Your task to perform on an android device: open app "Roku - Official Remote Control" Image 0: 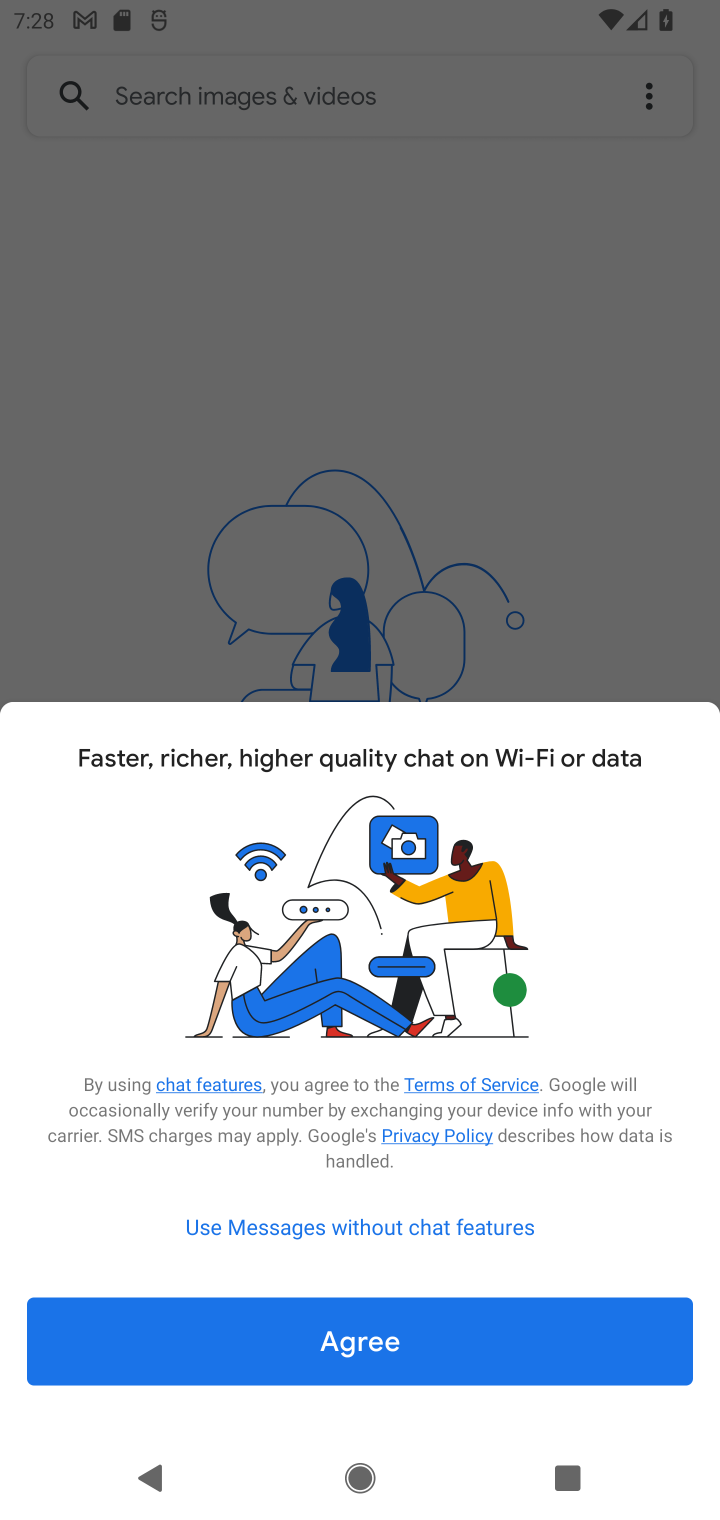
Step 0: press home button
Your task to perform on an android device: open app "Roku - Official Remote Control" Image 1: 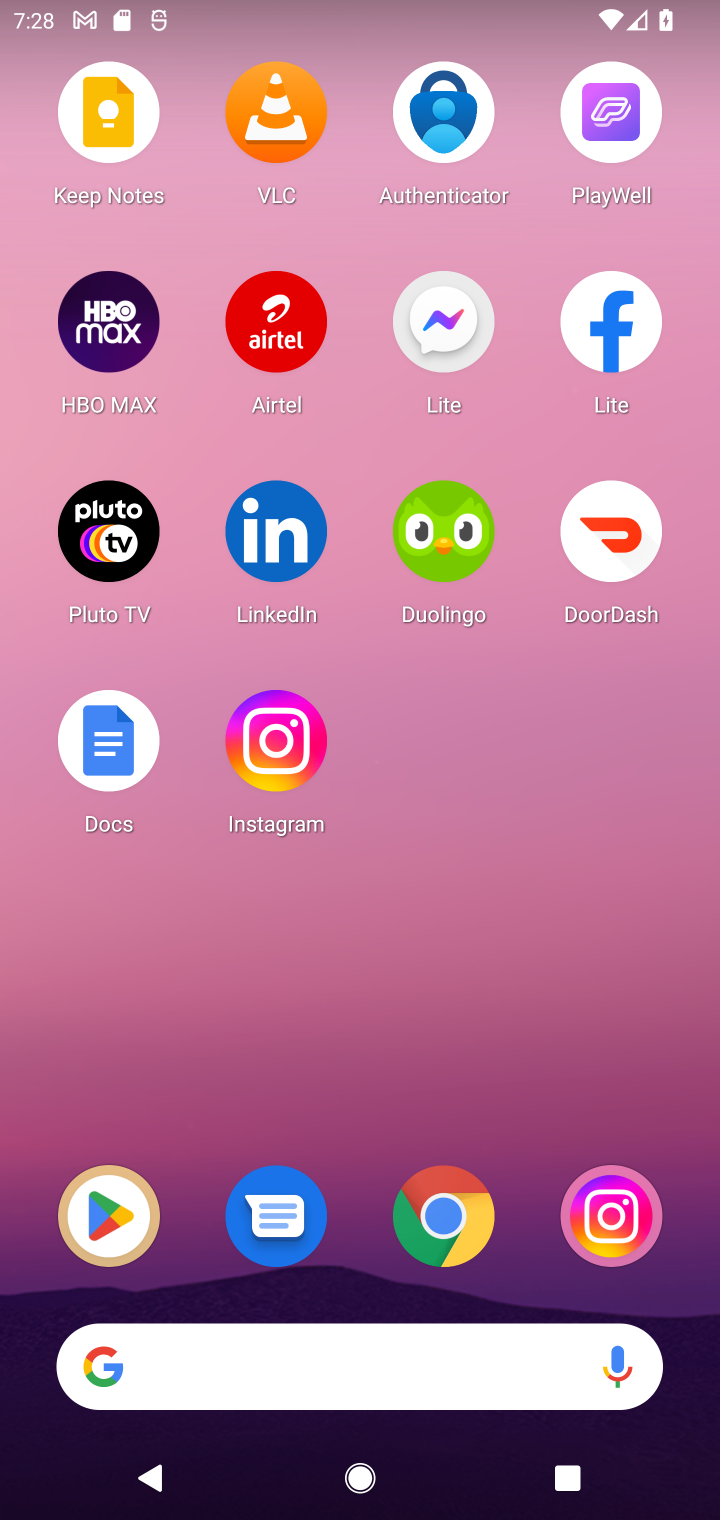
Step 1: press home button
Your task to perform on an android device: open app "Roku - Official Remote Control" Image 2: 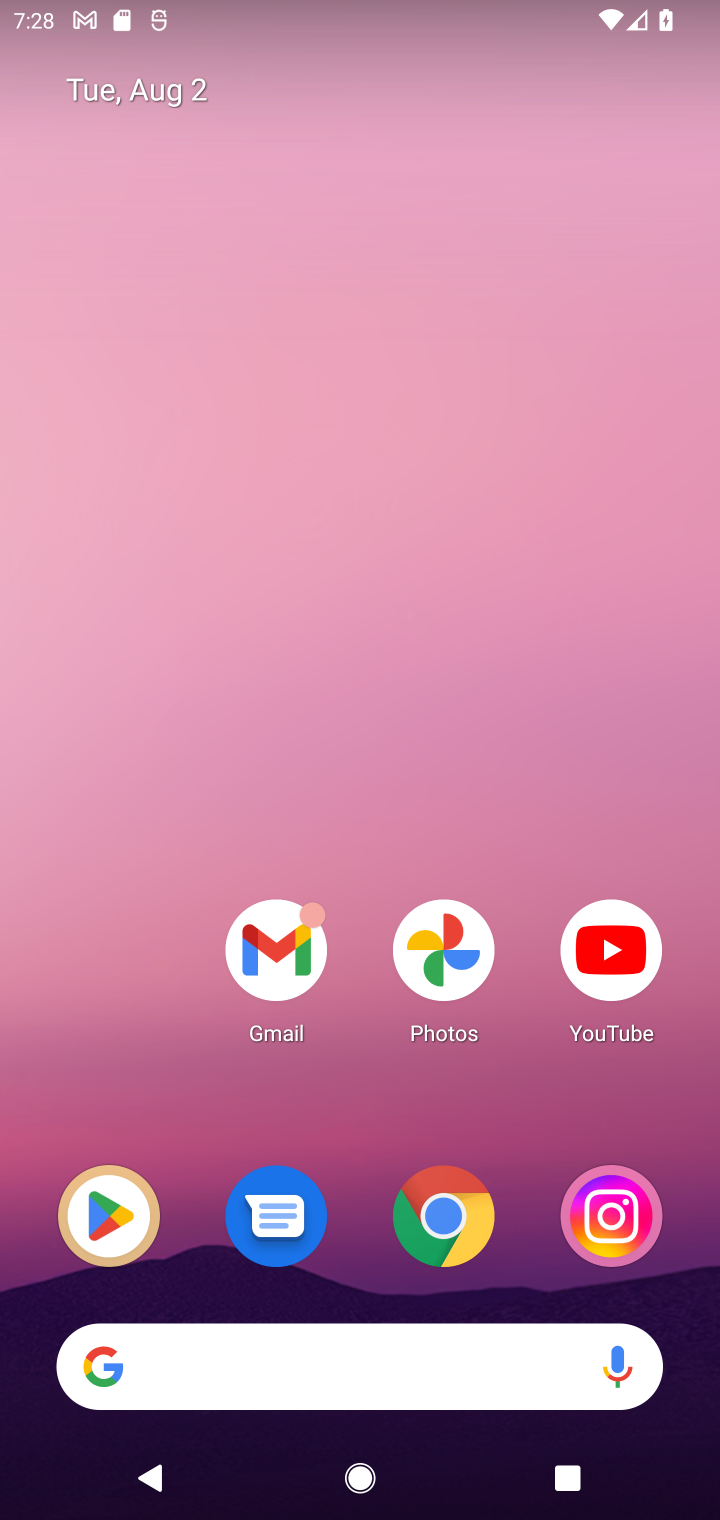
Step 2: click (95, 1209)
Your task to perform on an android device: open app "Roku - Official Remote Control" Image 3: 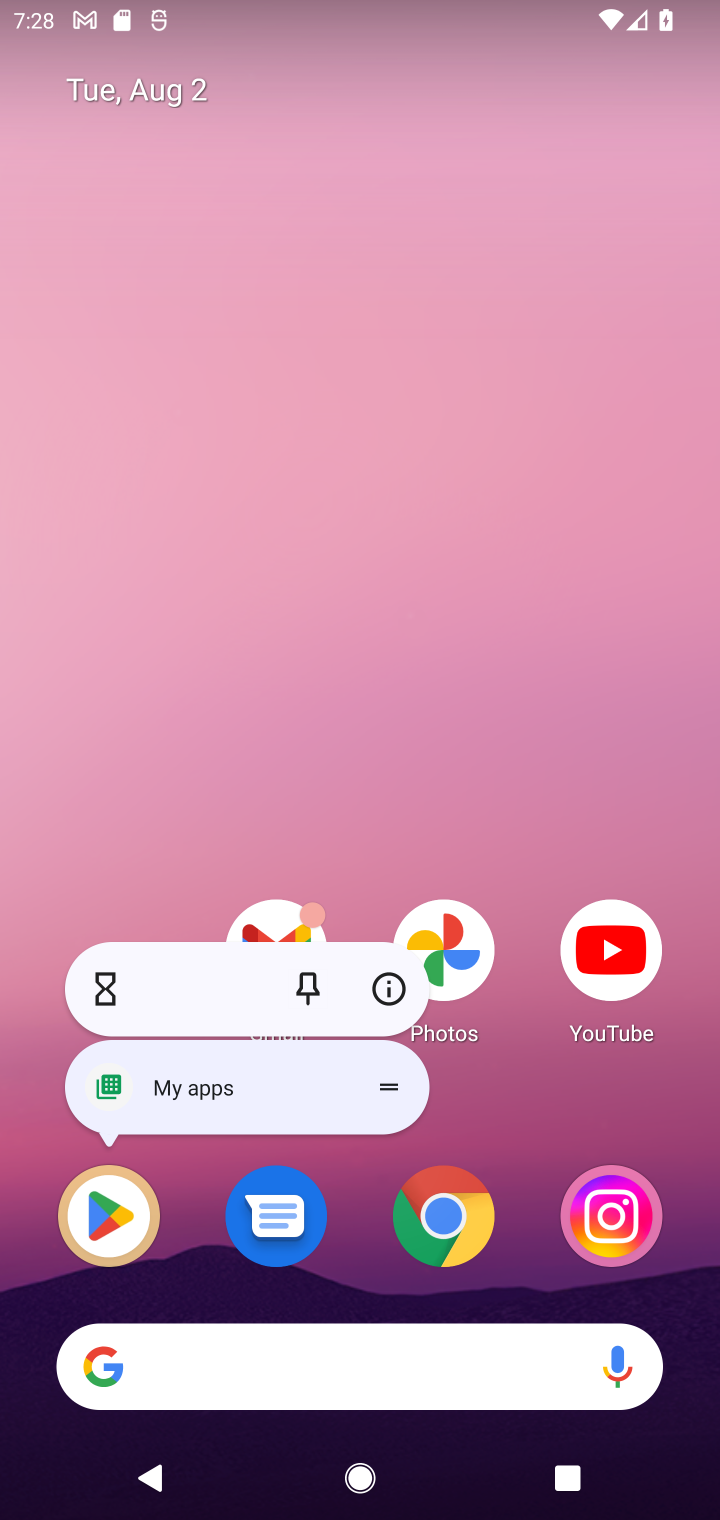
Step 3: click (93, 1209)
Your task to perform on an android device: open app "Roku - Official Remote Control" Image 4: 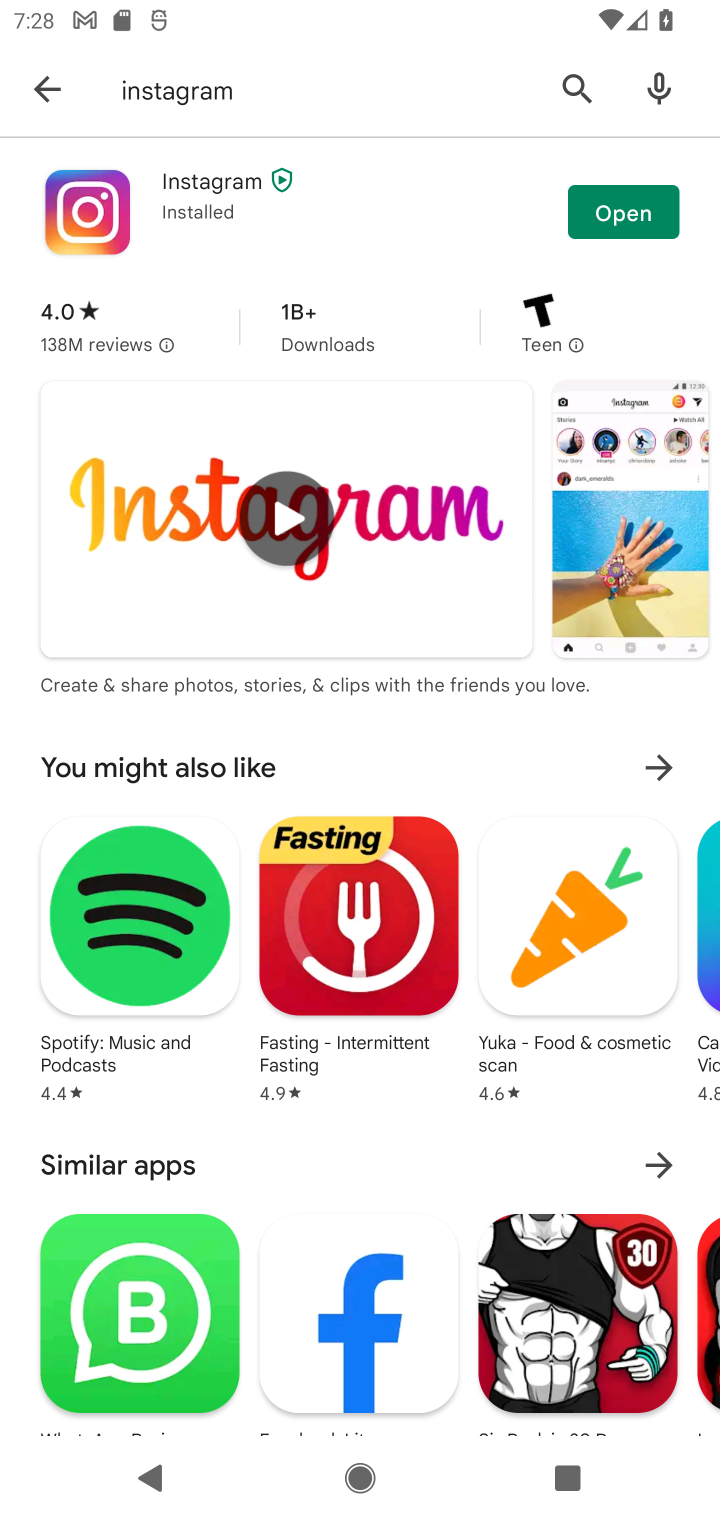
Step 4: click (574, 82)
Your task to perform on an android device: open app "Roku - Official Remote Control" Image 5: 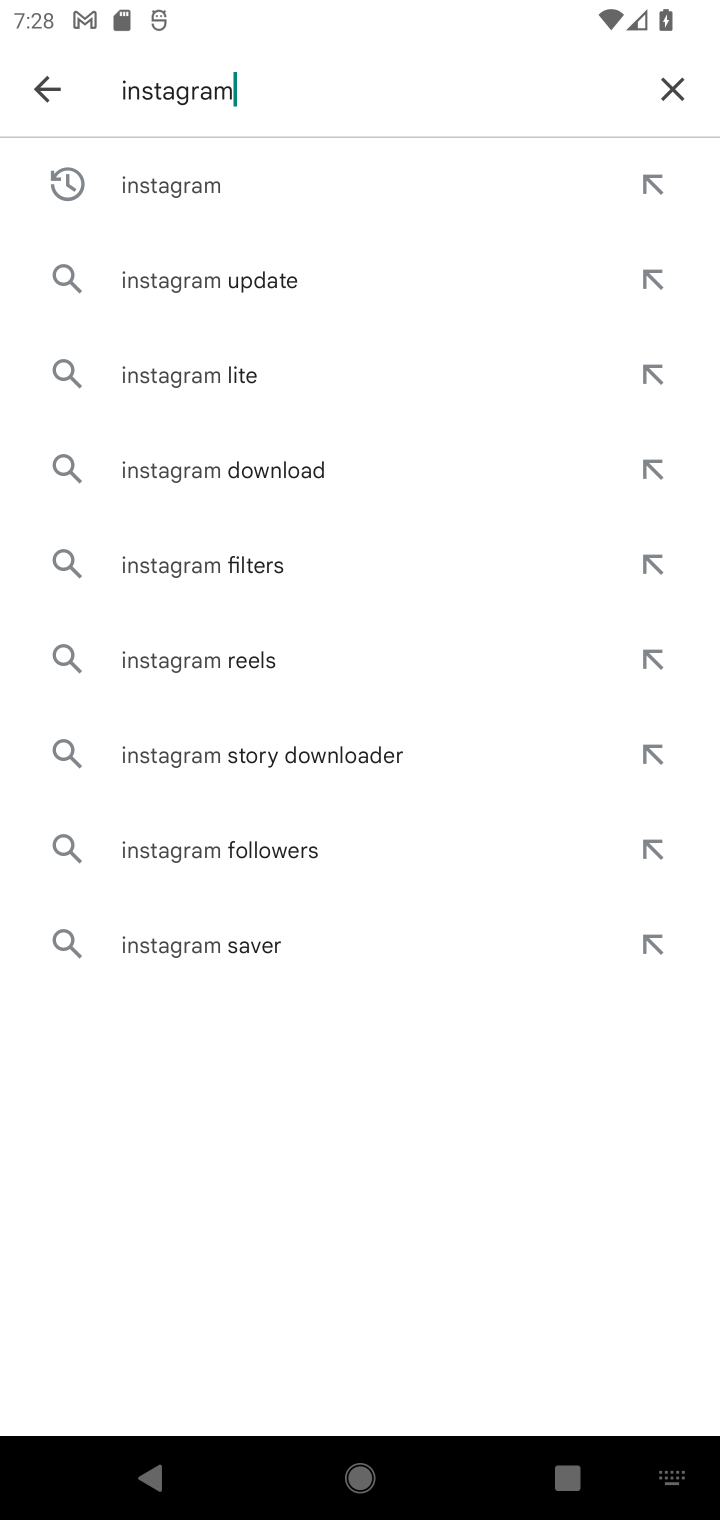
Step 5: click (676, 86)
Your task to perform on an android device: open app "Roku - Official Remote Control" Image 6: 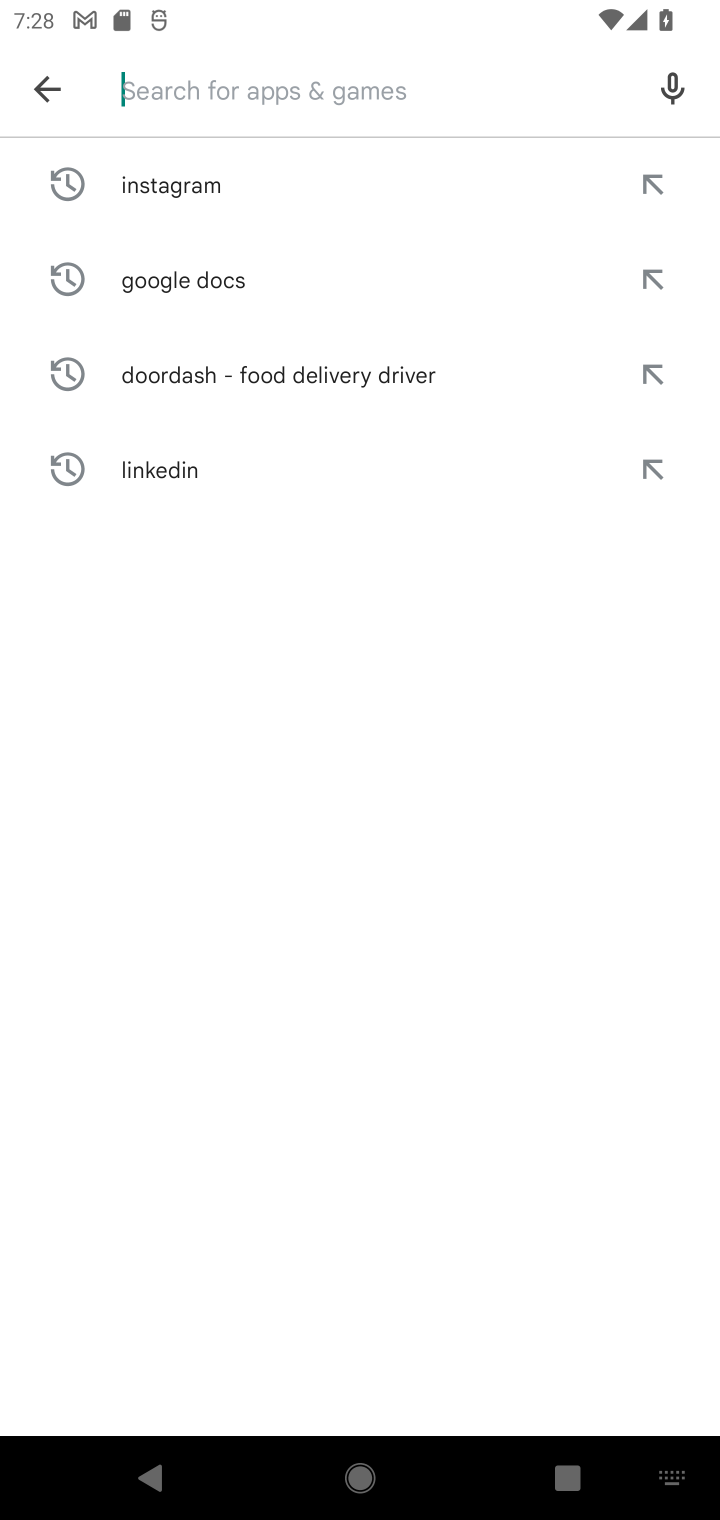
Step 6: type "Roku - Official Remote Control"
Your task to perform on an android device: open app "Roku - Official Remote Control" Image 7: 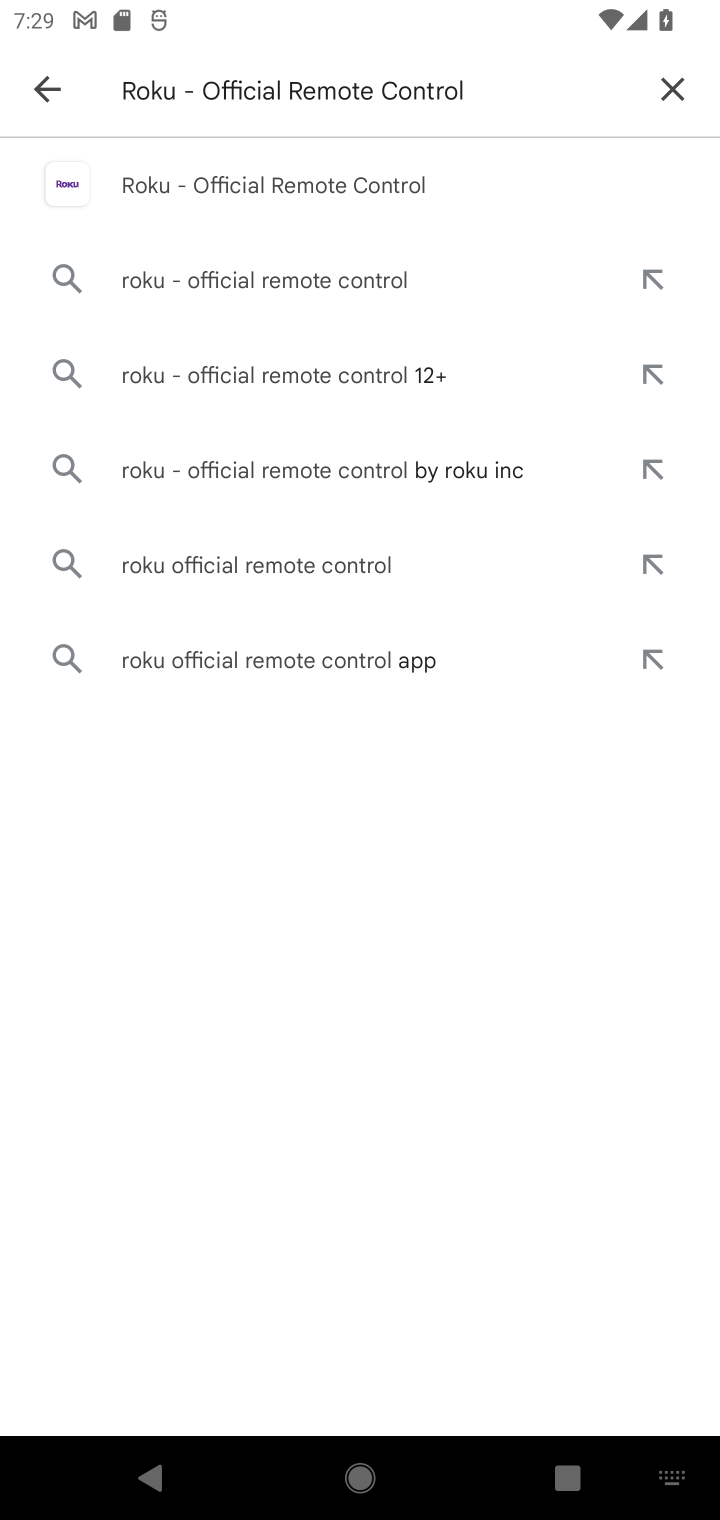
Step 7: click (236, 187)
Your task to perform on an android device: open app "Roku - Official Remote Control" Image 8: 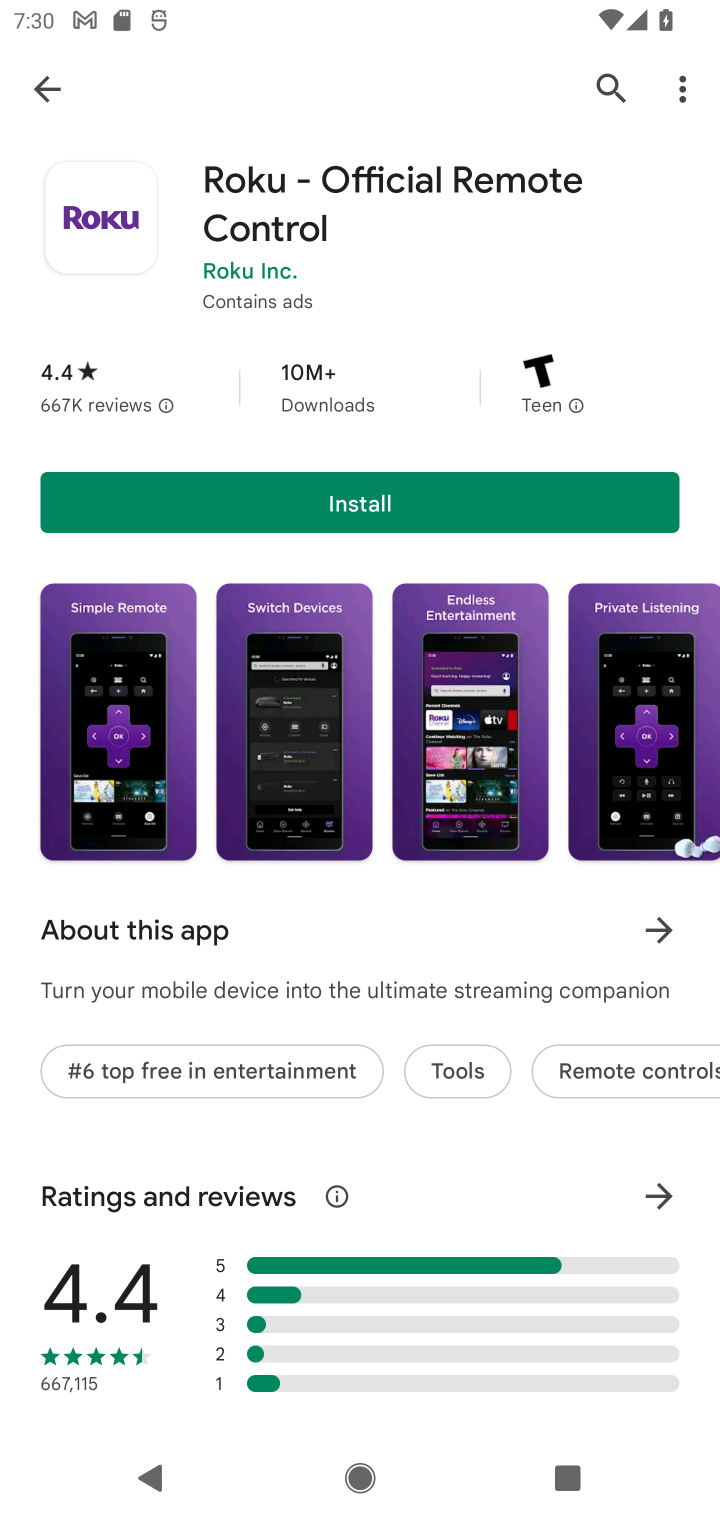
Step 8: click (353, 510)
Your task to perform on an android device: open app "Roku - Official Remote Control" Image 9: 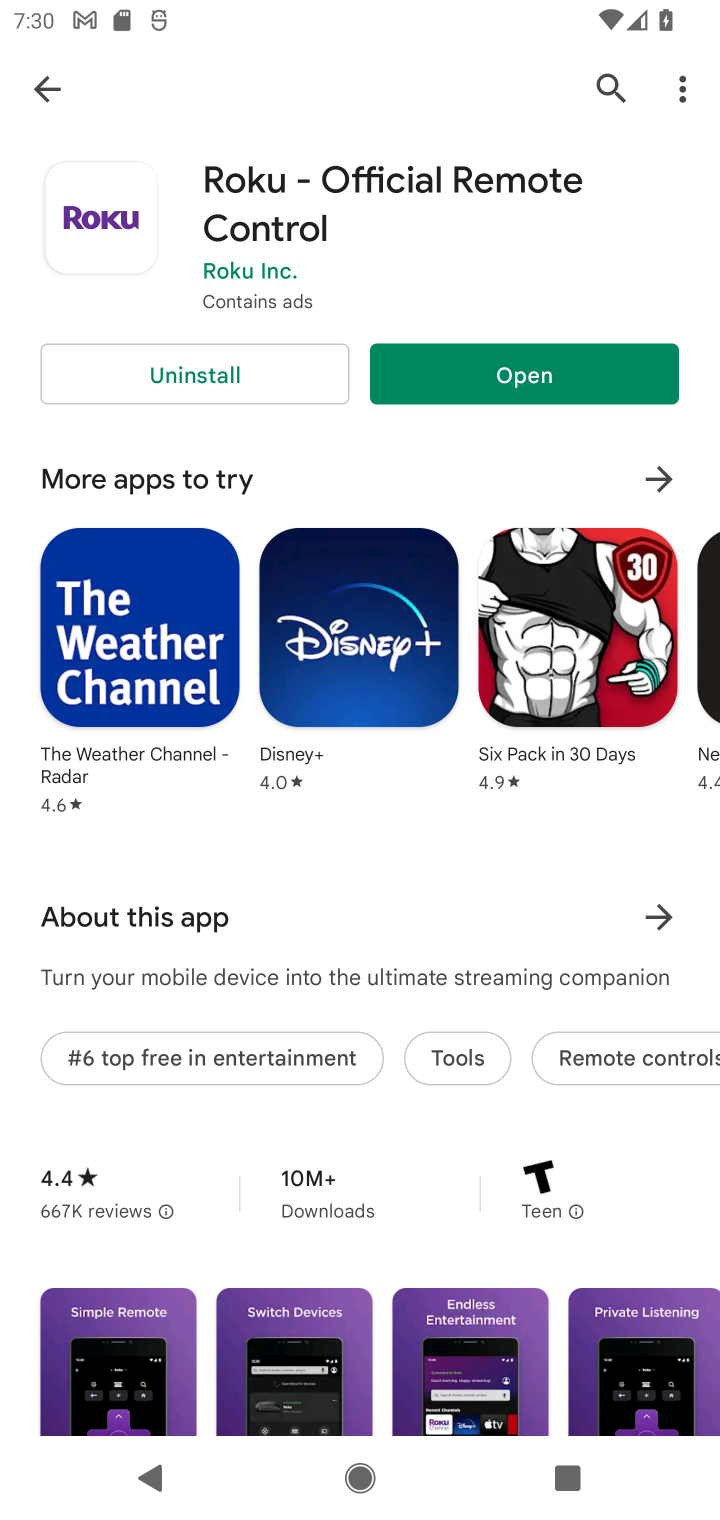
Step 9: task complete